Your task to perform on an android device: read, delete, or share a saved page in the chrome app Image 0: 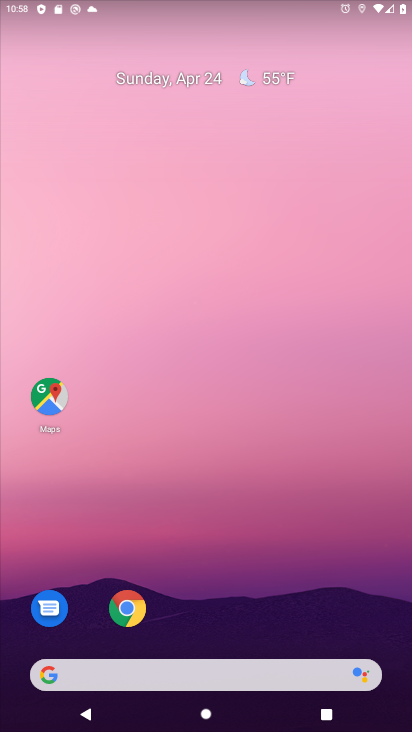
Step 0: click (126, 606)
Your task to perform on an android device: read, delete, or share a saved page in the chrome app Image 1: 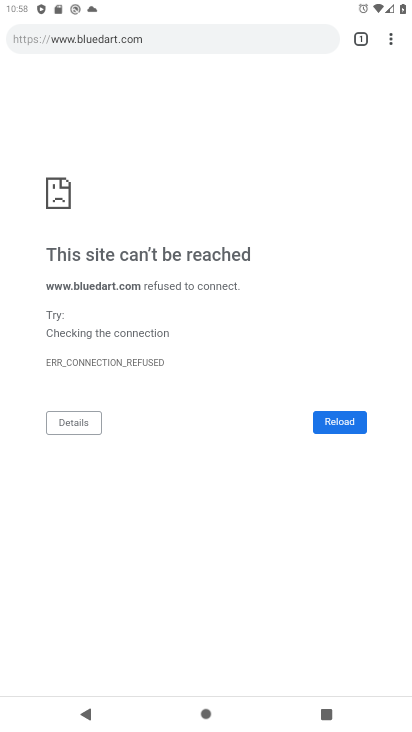
Step 1: click (390, 40)
Your task to perform on an android device: read, delete, or share a saved page in the chrome app Image 2: 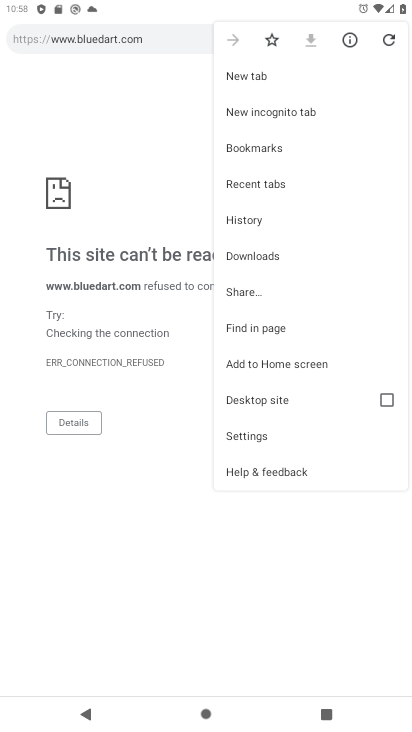
Step 2: click (248, 255)
Your task to perform on an android device: read, delete, or share a saved page in the chrome app Image 3: 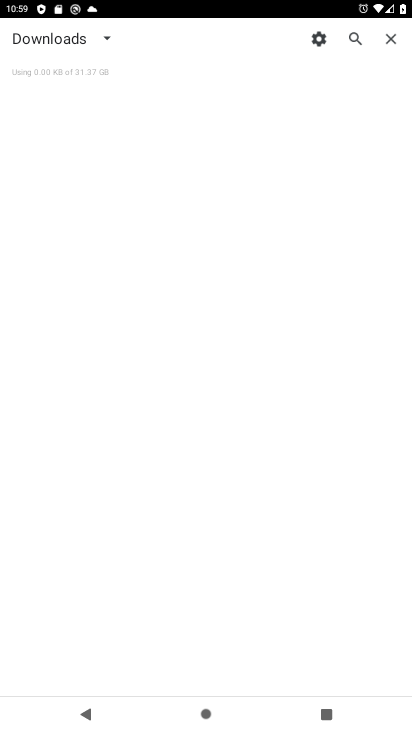
Step 3: click (101, 35)
Your task to perform on an android device: read, delete, or share a saved page in the chrome app Image 4: 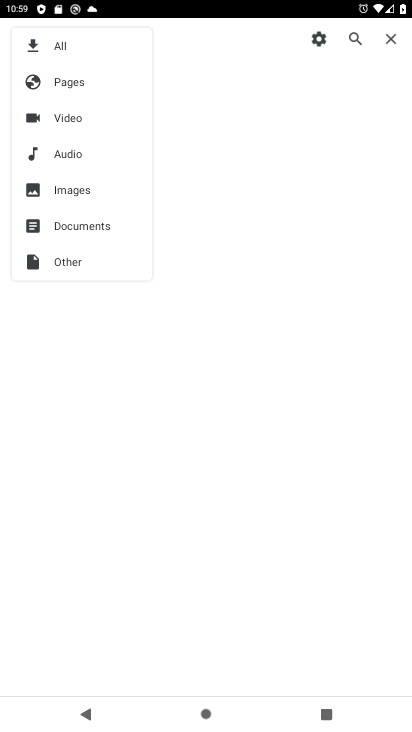
Step 4: click (55, 91)
Your task to perform on an android device: read, delete, or share a saved page in the chrome app Image 5: 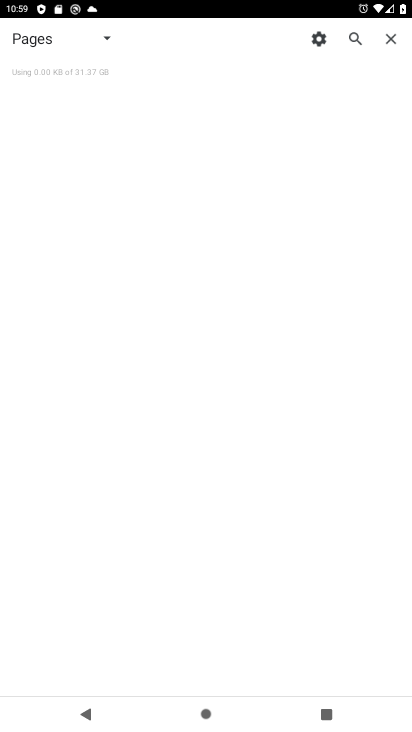
Step 5: task complete